Your task to perform on an android device: Open settings Image 0: 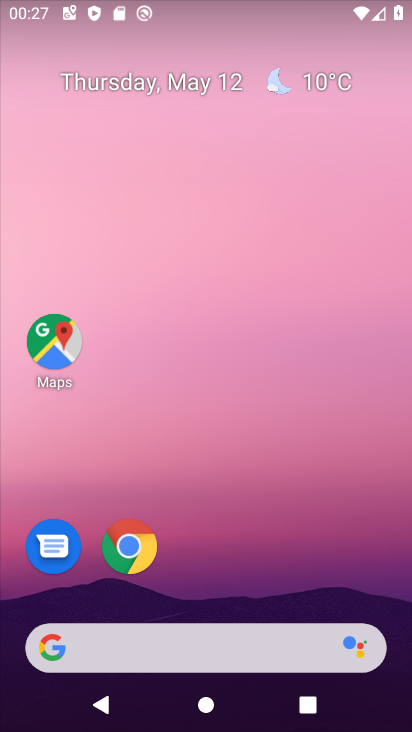
Step 0: drag from (170, 575) to (204, 190)
Your task to perform on an android device: Open settings Image 1: 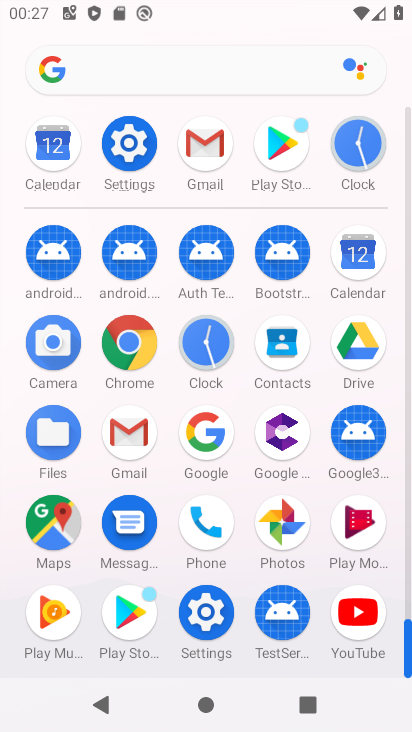
Step 1: click (209, 616)
Your task to perform on an android device: Open settings Image 2: 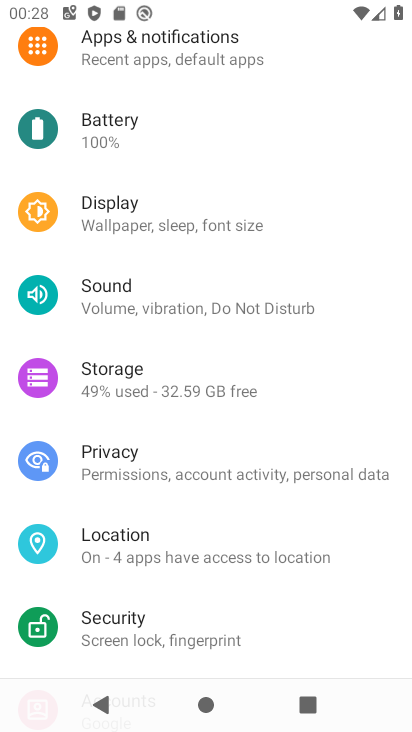
Step 2: task complete